Your task to perform on an android device: turn off smart reply in the gmail app Image 0: 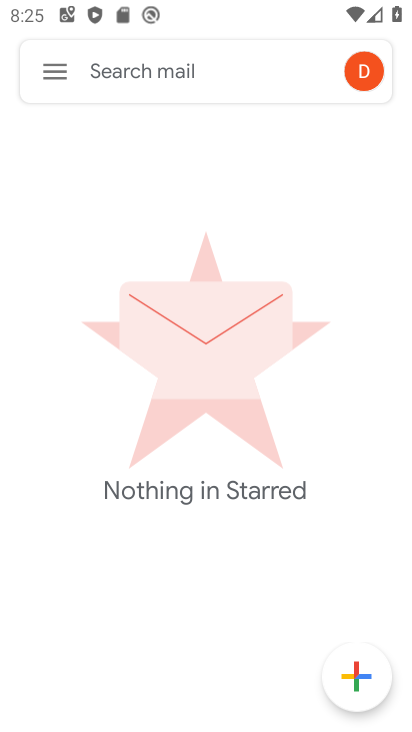
Step 0: click (49, 73)
Your task to perform on an android device: turn off smart reply in the gmail app Image 1: 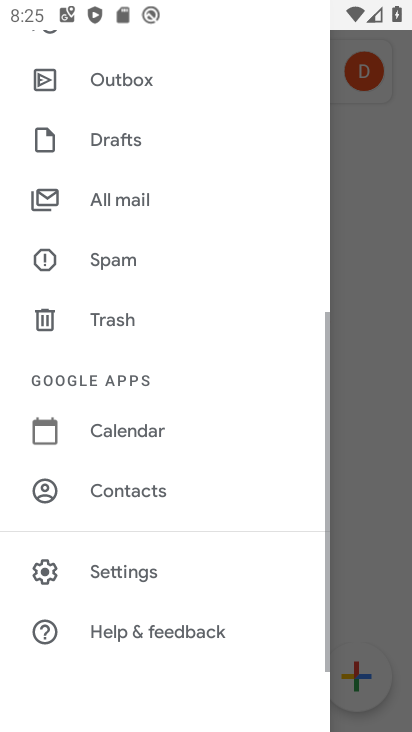
Step 1: click (143, 552)
Your task to perform on an android device: turn off smart reply in the gmail app Image 2: 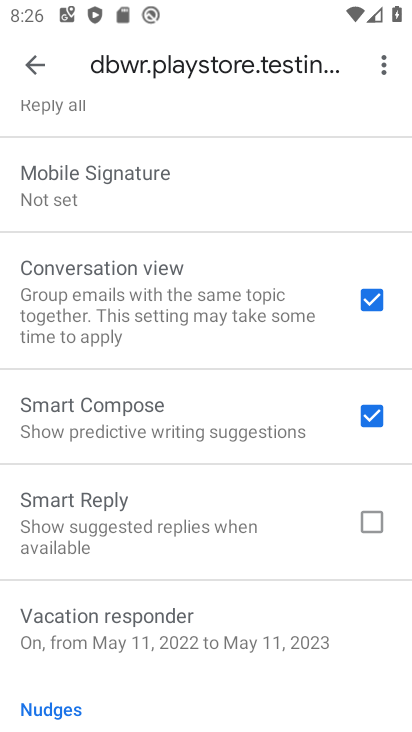
Step 2: task complete